Your task to perform on an android device: Search for Italian restaurants on Maps Image 0: 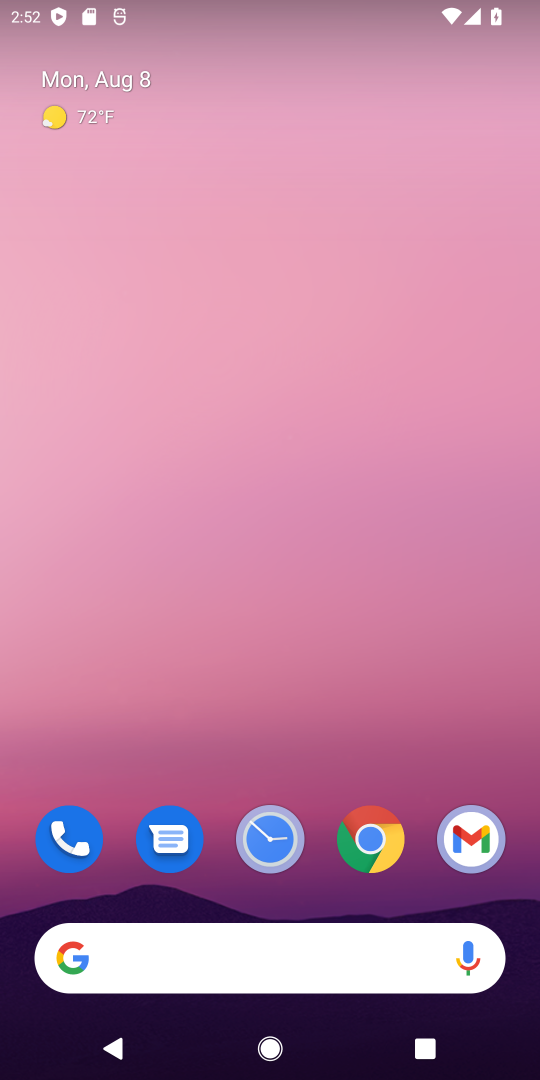
Step 0: press home button
Your task to perform on an android device: Search for Italian restaurants on Maps Image 1: 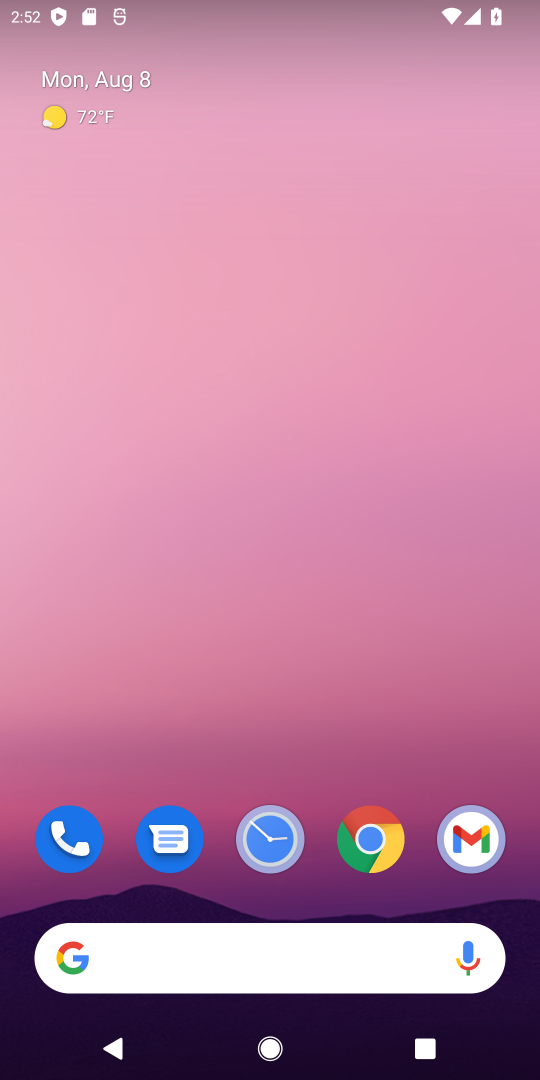
Step 1: drag from (408, 737) to (406, 203)
Your task to perform on an android device: Search for Italian restaurants on Maps Image 2: 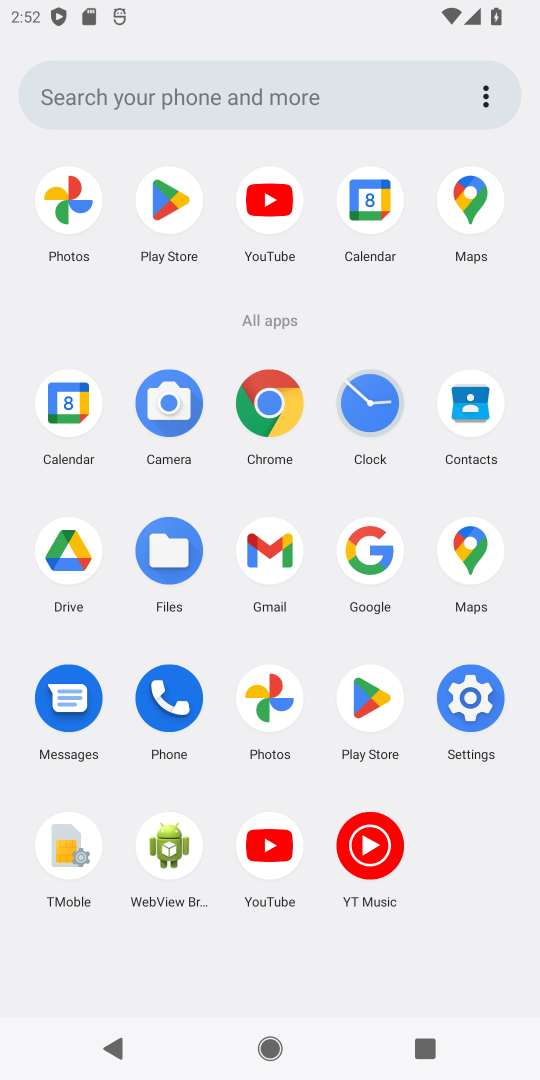
Step 2: click (471, 558)
Your task to perform on an android device: Search for Italian restaurants on Maps Image 3: 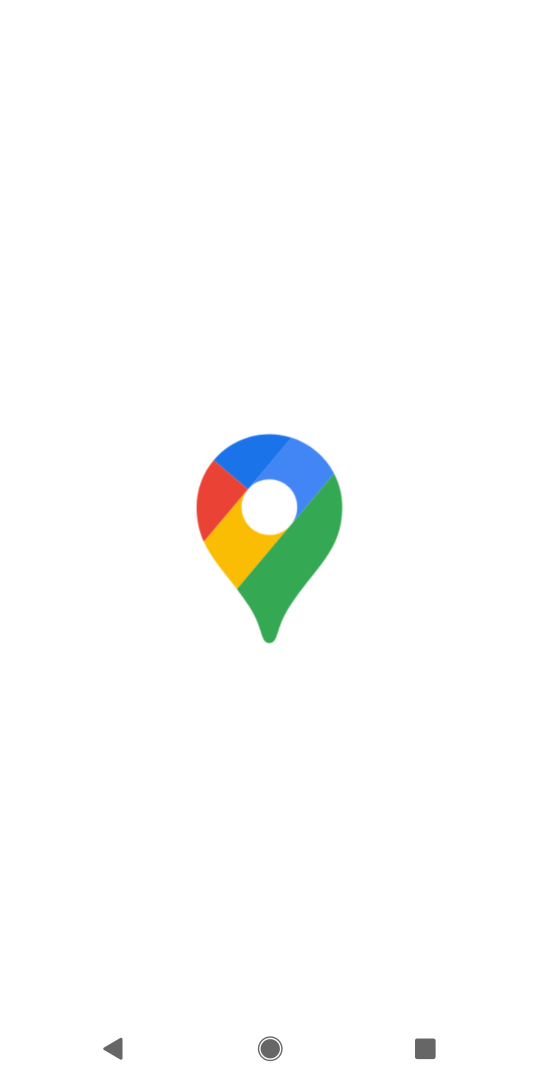
Step 3: task complete